Your task to perform on an android device: toggle translation in the chrome app Image 0: 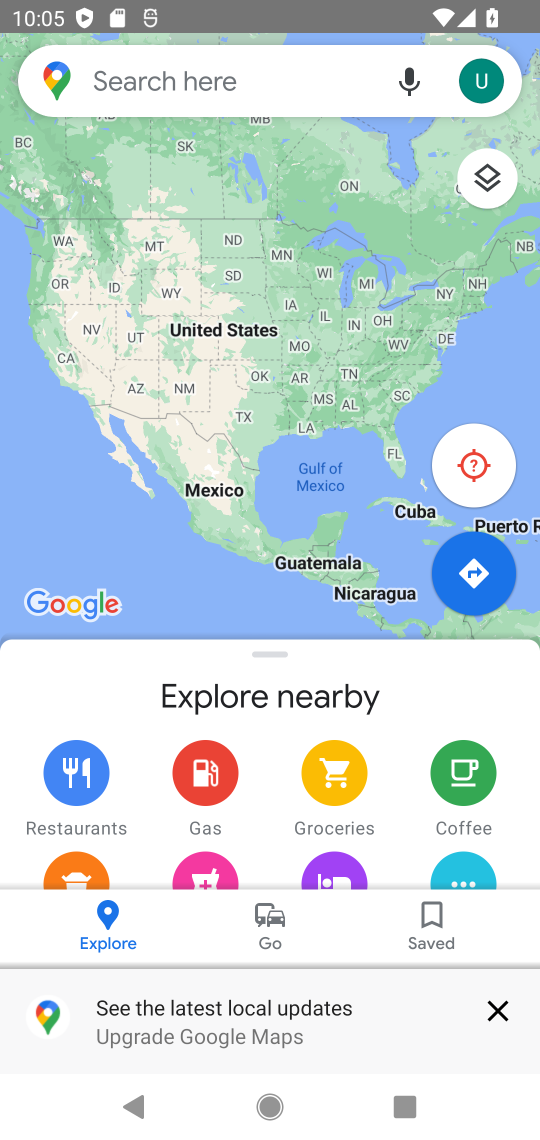
Step 0: press back button
Your task to perform on an android device: toggle translation in the chrome app Image 1: 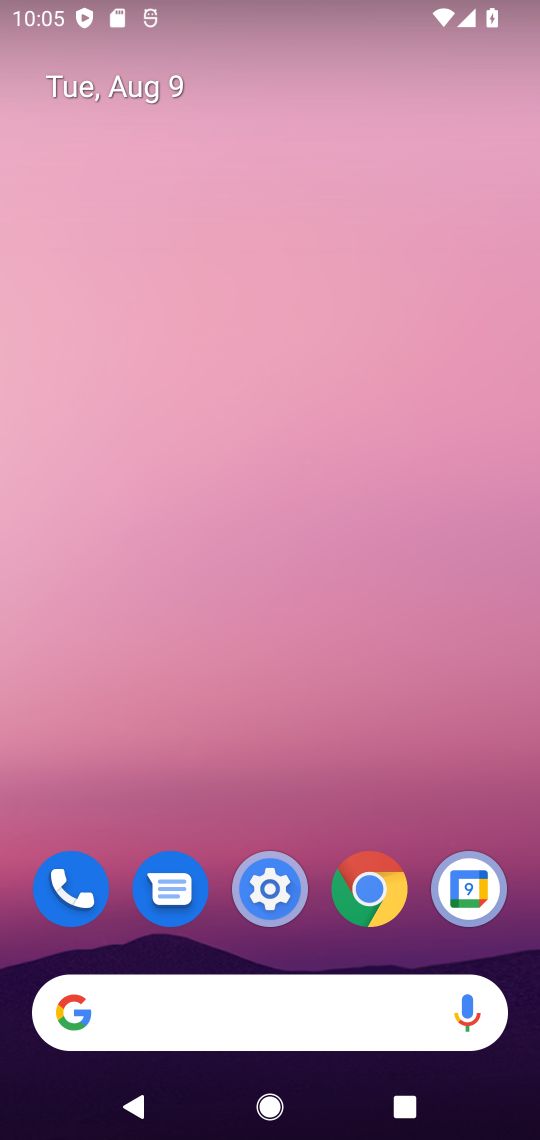
Step 1: click (392, 902)
Your task to perform on an android device: toggle translation in the chrome app Image 2: 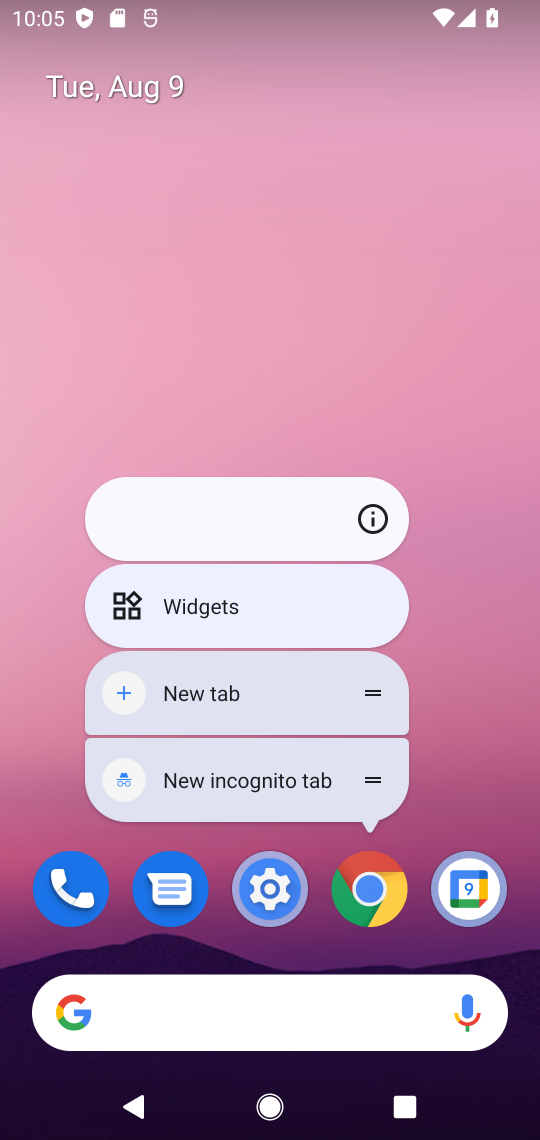
Step 2: click (377, 901)
Your task to perform on an android device: toggle translation in the chrome app Image 3: 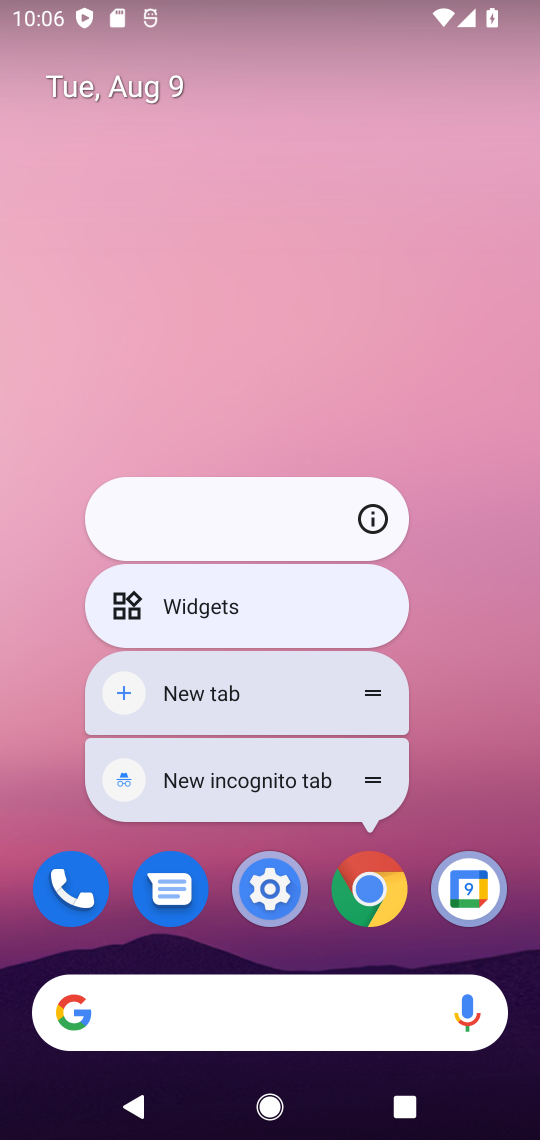
Step 3: click (373, 909)
Your task to perform on an android device: toggle translation in the chrome app Image 4: 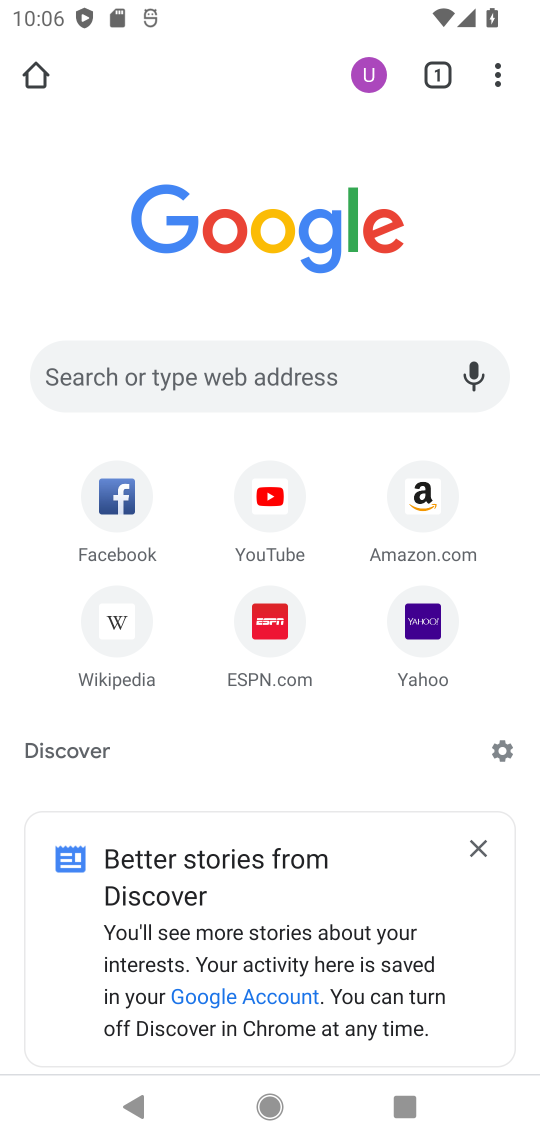
Step 4: drag from (495, 75) to (286, 714)
Your task to perform on an android device: toggle translation in the chrome app Image 5: 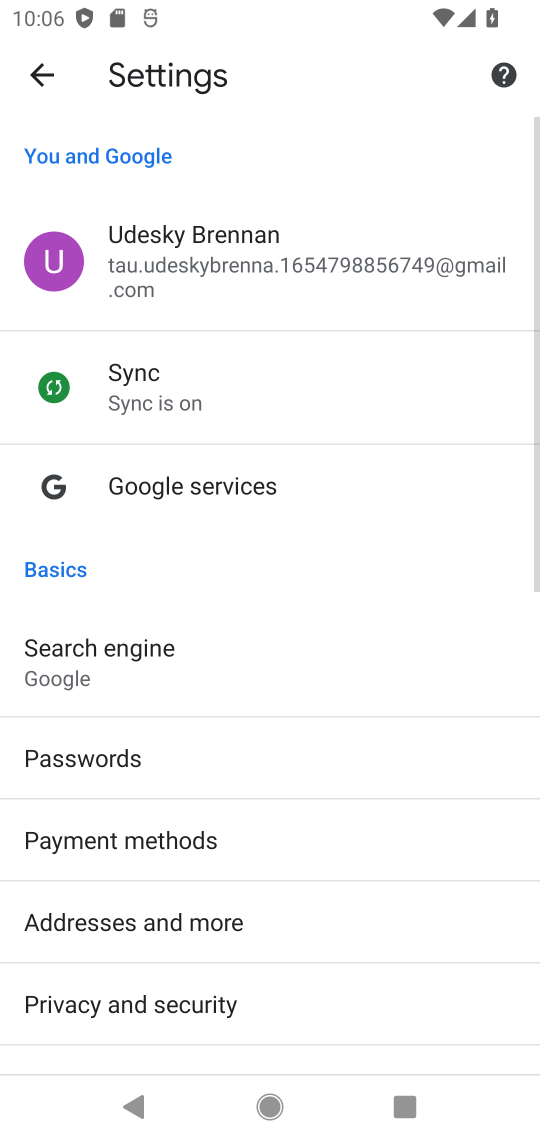
Step 5: drag from (226, 1000) to (409, 356)
Your task to perform on an android device: toggle translation in the chrome app Image 6: 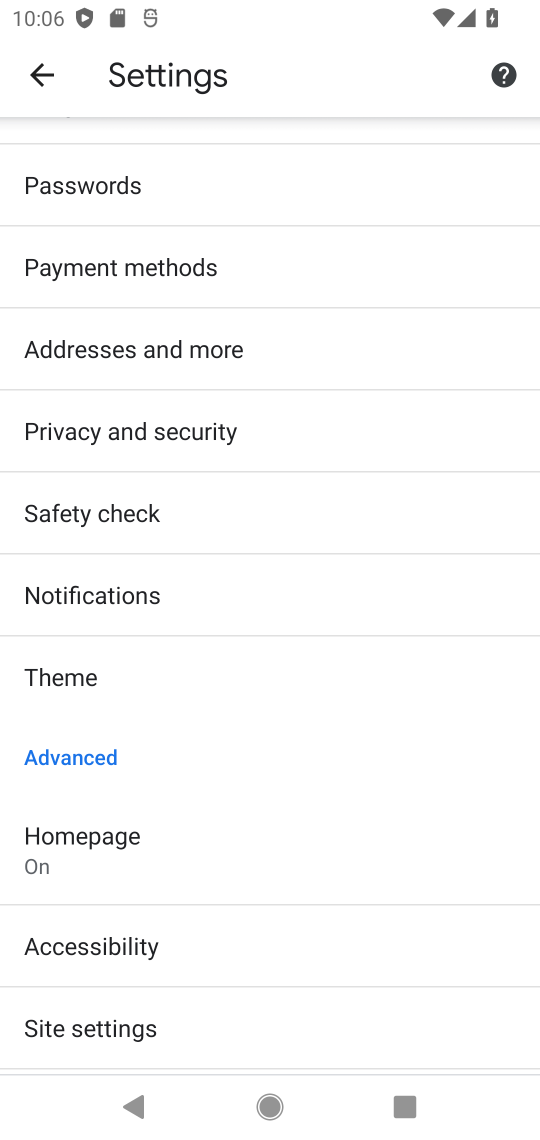
Step 6: drag from (173, 982) to (410, 239)
Your task to perform on an android device: toggle translation in the chrome app Image 7: 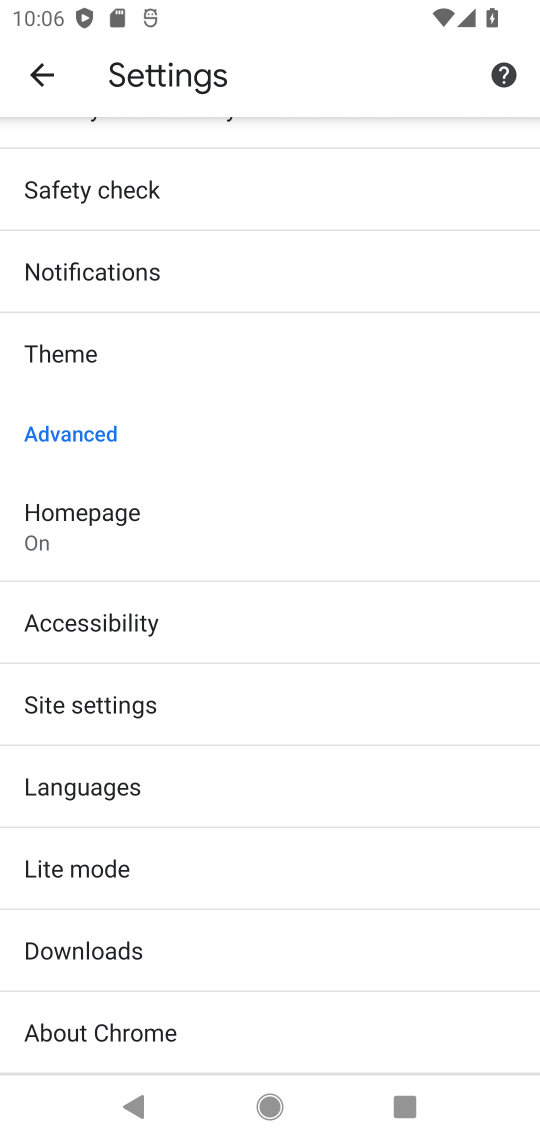
Step 7: click (92, 782)
Your task to perform on an android device: toggle translation in the chrome app Image 8: 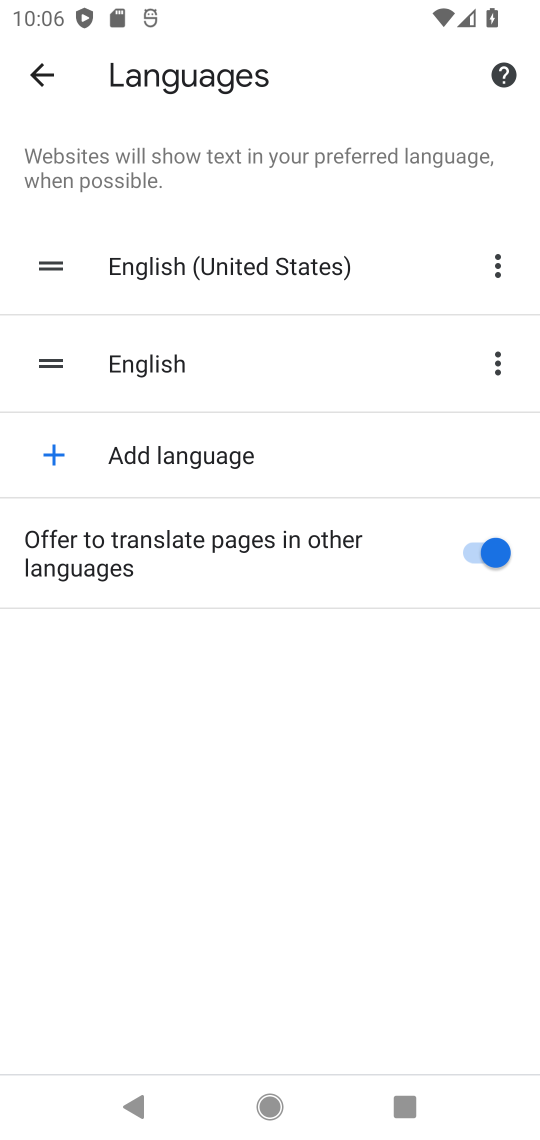
Step 8: click (494, 543)
Your task to perform on an android device: toggle translation in the chrome app Image 9: 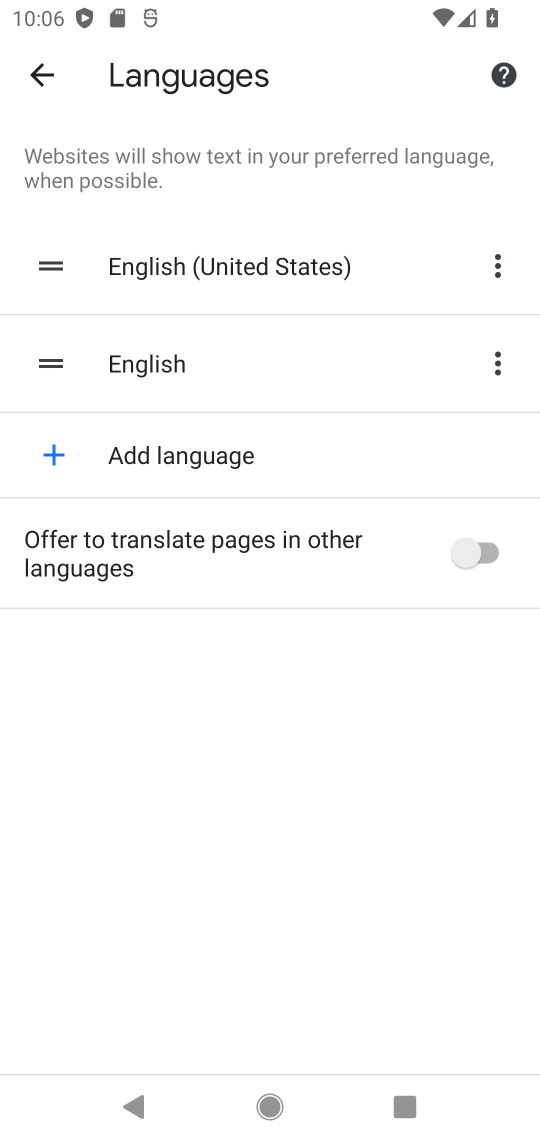
Step 9: task complete